Your task to perform on an android device: turn pop-ups off in chrome Image 0: 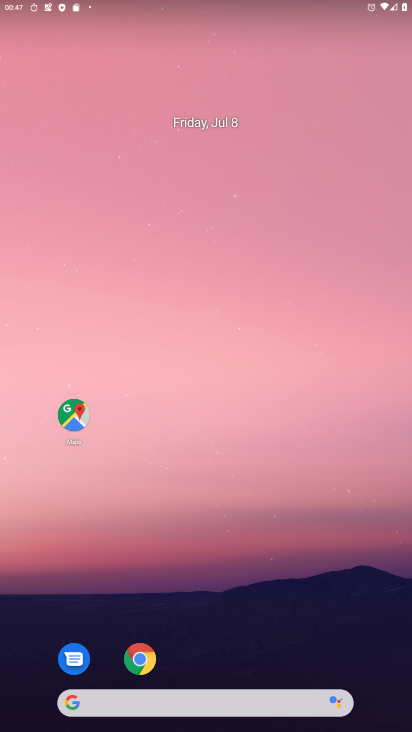
Step 0: click (146, 658)
Your task to perform on an android device: turn pop-ups off in chrome Image 1: 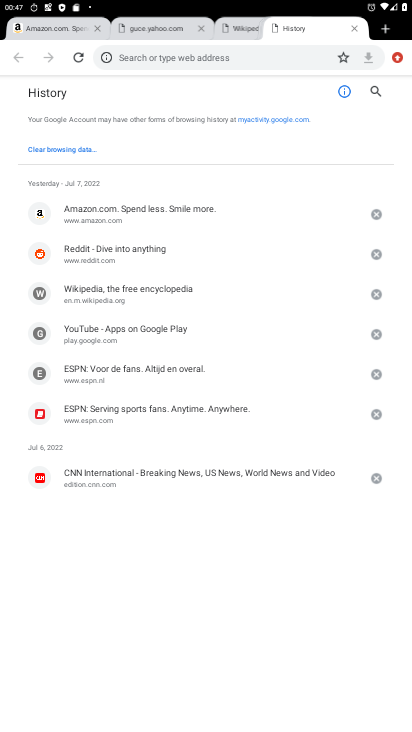
Step 1: click (388, 58)
Your task to perform on an android device: turn pop-ups off in chrome Image 2: 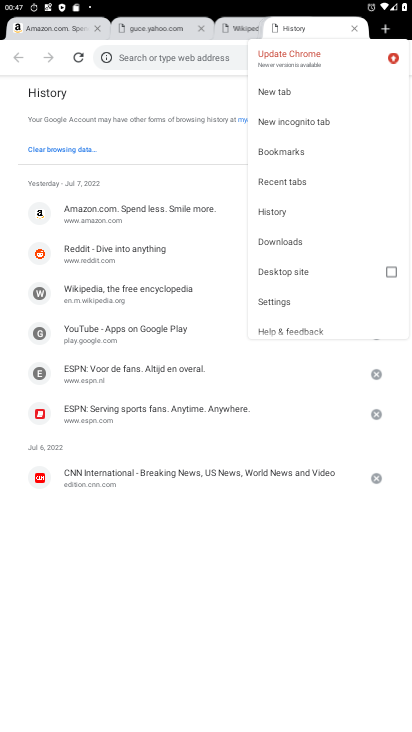
Step 2: click (275, 296)
Your task to perform on an android device: turn pop-ups off in chrome Image 3: 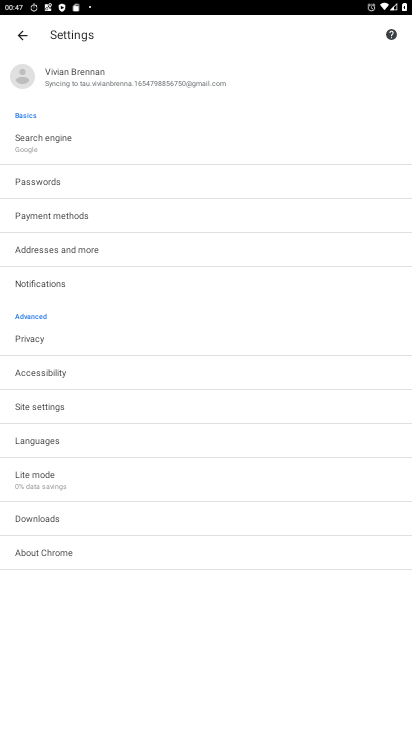
Step 3: click (44, 417)
Your task to perform on an android device: turn pop-ups off in chrome Image 4: 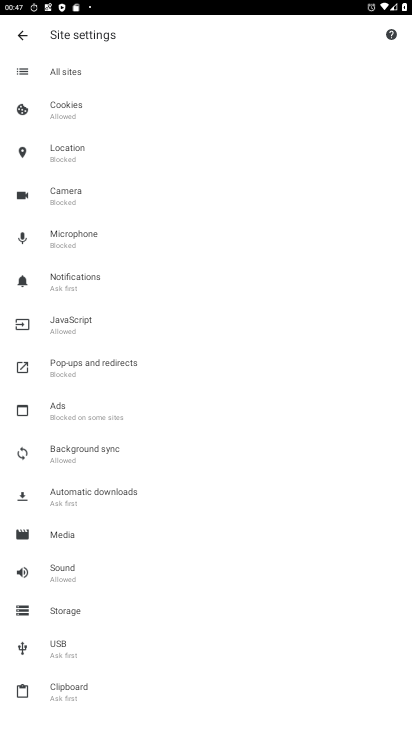
Step 4: click (99, 362)
Your task to perform on an android device: turn pop-ups off in chrome Image 5: 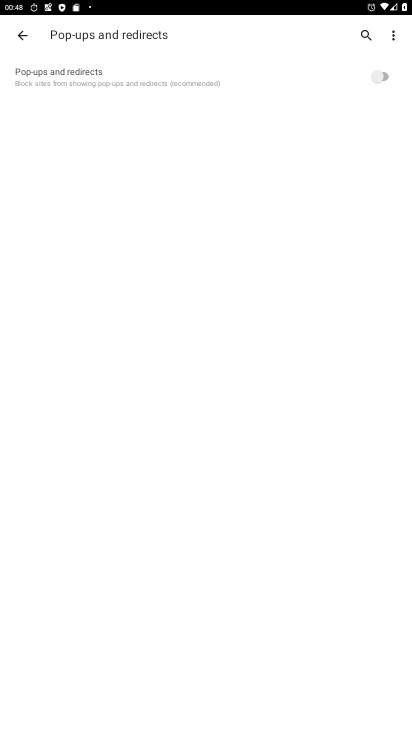
Step 5: task complete